Your task to perform on an android device: Open the calendar and show me this week's events? Image 0: 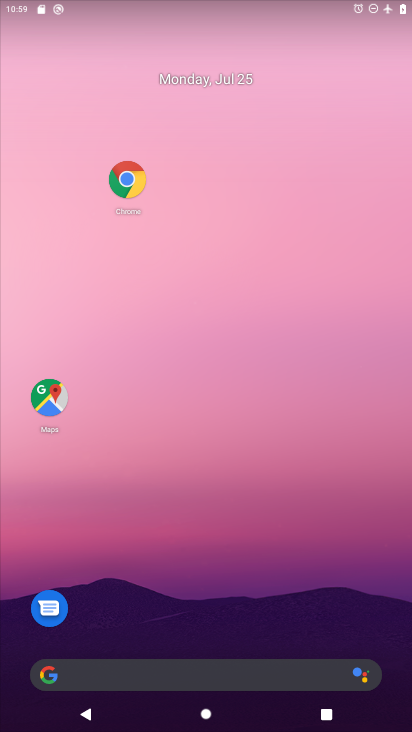
Step 0: drag from (159, 713) to (194, 158)
Your task to perform on an android device: Open the calendar and show me this week's events? Image 1: 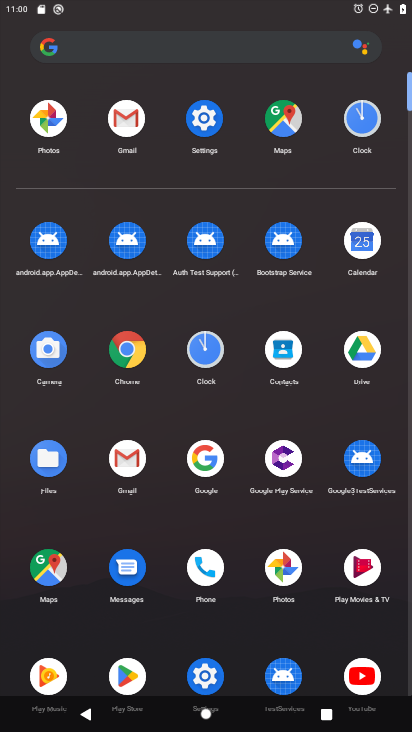
Step 1: click (362, 253)
Your task to perform on an android device: Open the calendar and show me this week's events? Image 2: 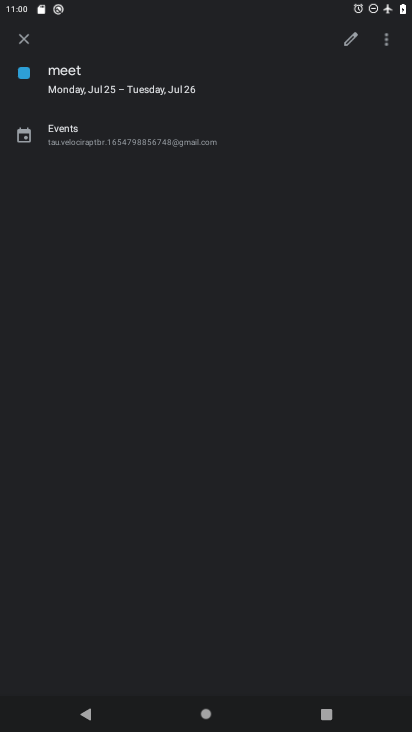
Step 2: click (25, 39)
Your task to perform on an android device: Open the calendar and show me this week's events? Image 3: 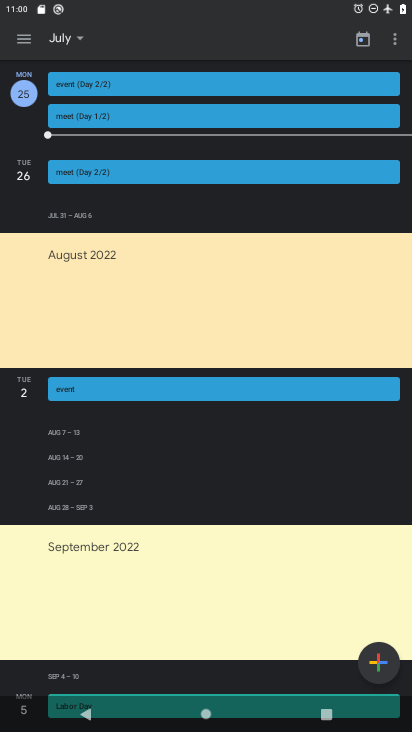
Step 3: click (61, 35)
Your task to perform on an android device: Open the calendar and show me this week's events? Image 4: 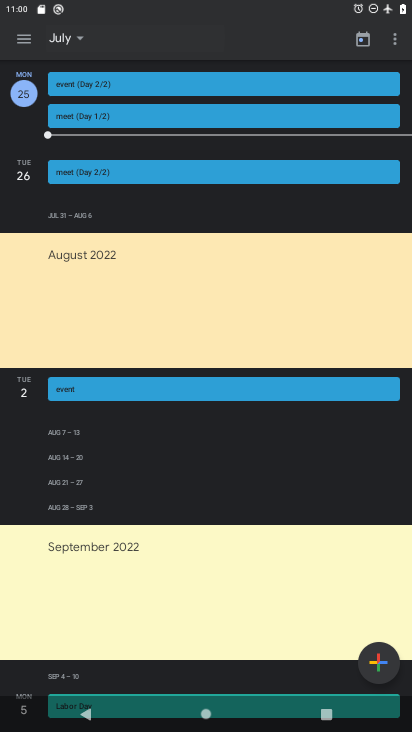
Step 4: click (61, 35)
Your task to perform on an android device: Open the calendar and show me this week's events? Image 5: 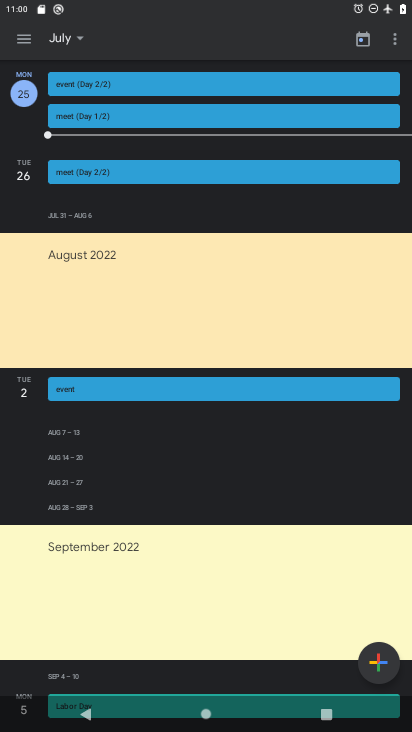
Step 5: click (55, 46)
Your task to perform on an android device: Open the calendar and show me this week's events? Image 6: 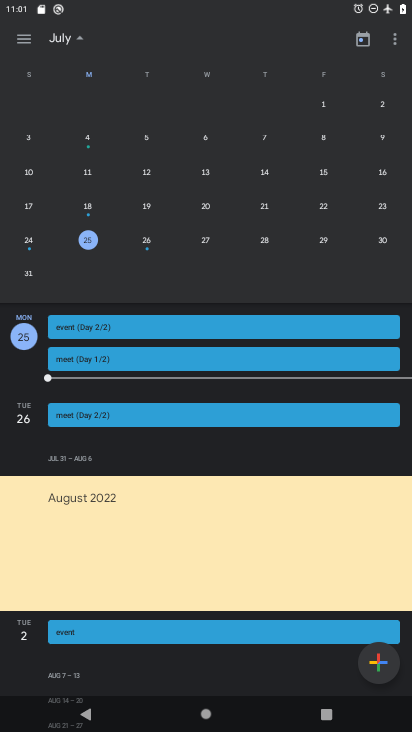
Step 6: task complete